Your task to perform on an android device: turn on javascript in the chrome app Image 0: 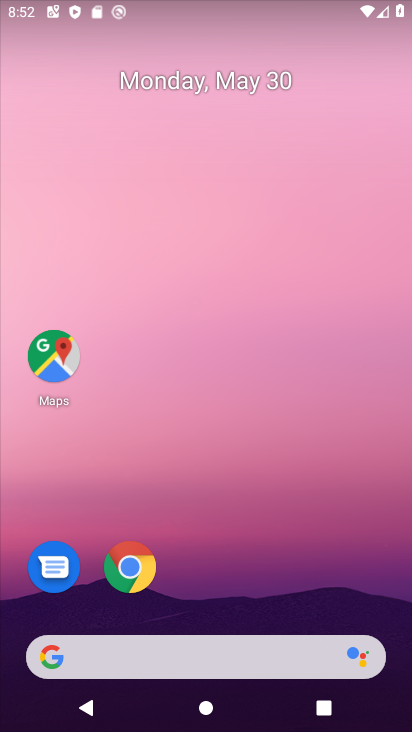
Step 0: drag from (224, 611) to (218, 223)
Your task to perform on an android device: turn on javascript in the chrome app Image 1: 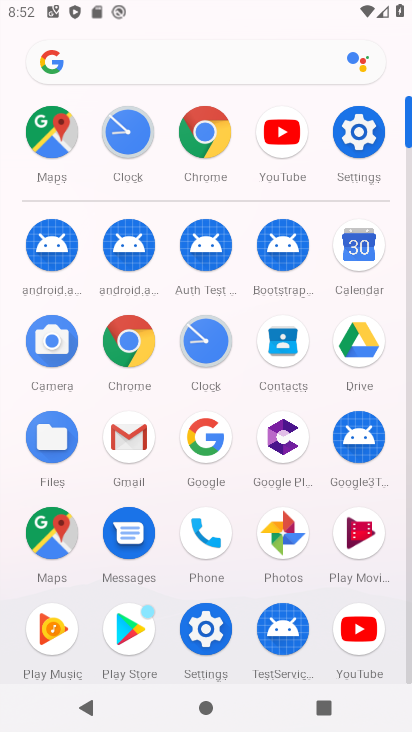
Step 1: click (207, 143)
Your task to perform on an android device: turn on javascript in the chrome app Image 2: 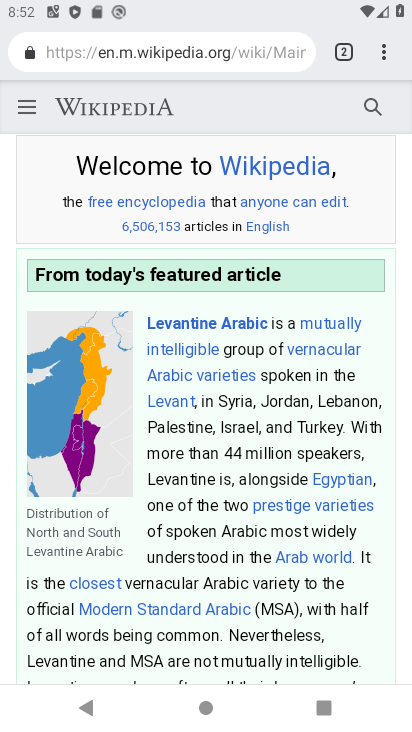
Step 2: click (385, 55)
Your task to perform on an android device: turn on javascript in the chrome app Image 3: 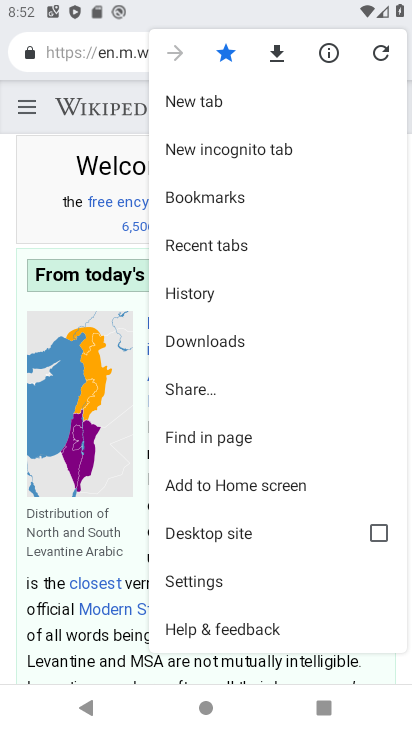
Step 3: click (240, 577)
Your task to perform on an android device: turn on javascript in the chrome app Image 4: 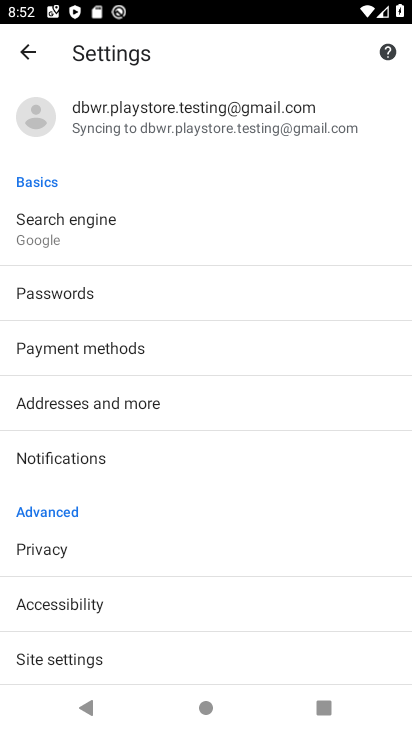
Step 4: drag from (165, 647) to (175, 336)
Your task to perform on an android device: turn on javascript in the chrome app Image 5: 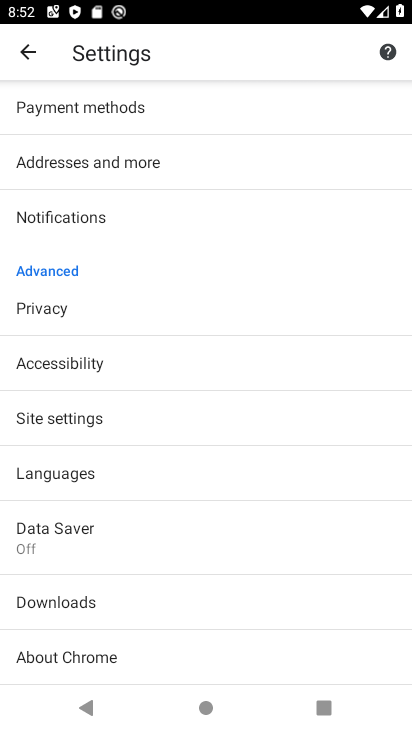
Step 5: click (152, 412)
Your task to perform on an android device: turn on javascript in the chrome app Image 6: 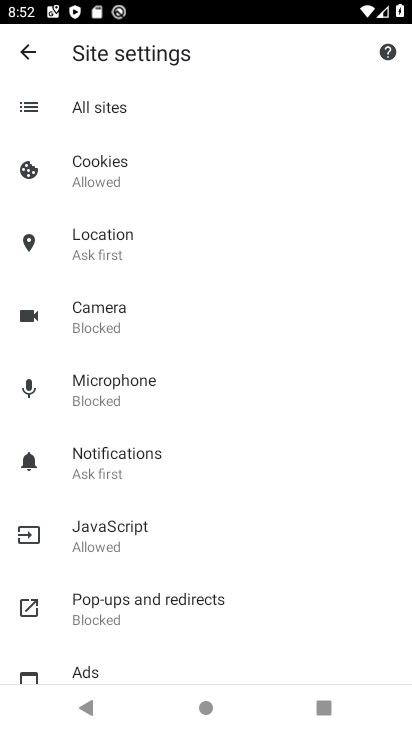
Step 6: click (154, 536)
Your task to perform on an android device: turn on javascript in the chrome app Image 7: 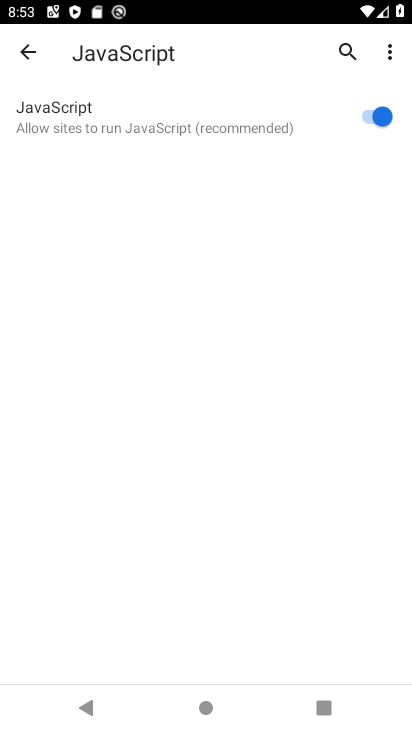
Step 7: task complete